Your task to perform on an android device: clear history in the chrome app Image 0: 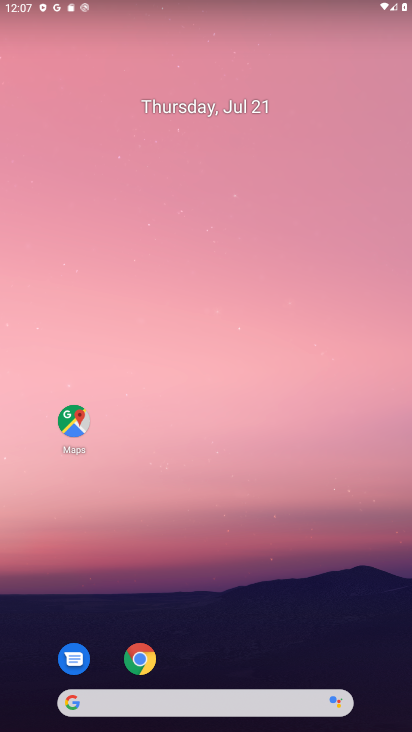
Step 0: click (144, 667)
Your task to perform on an android device: clear history in the chrome app Image 1: 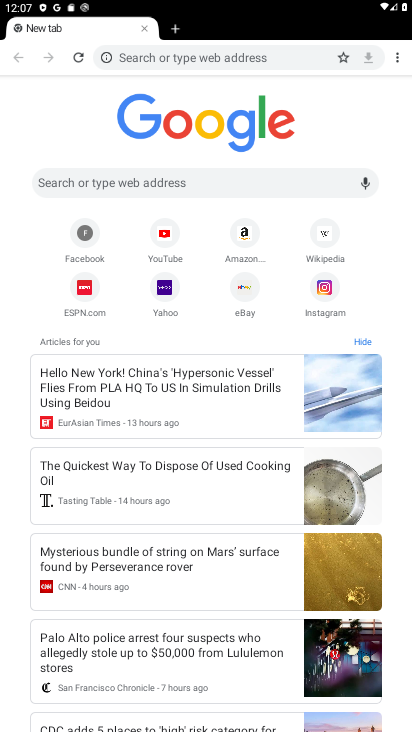
Step 1: click (398, 57)
Your task to perform on an android device: clear history in the chrome app Image 2: 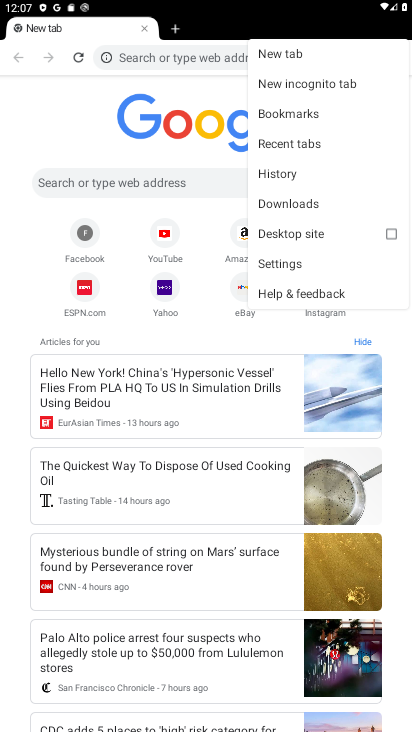
Step 2: click (292, 168)
Your task to perform on an android device: clear history in the chrome app Image 3: 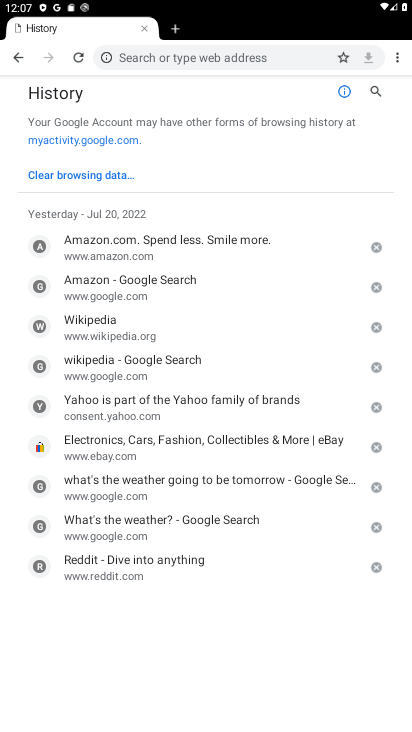
Step 3: click (83, 172)
Your task to perform on an android device: clear history in the chrome app Image 4: 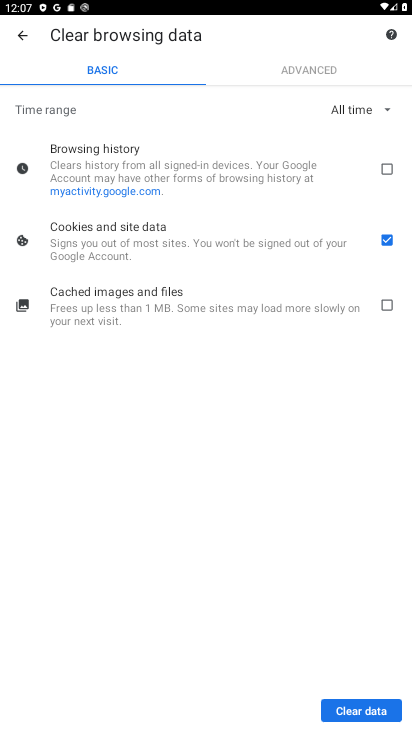
Step 4: click (383, 175)
Your task to perform on an android device: clear history in the chrome app Image 5: 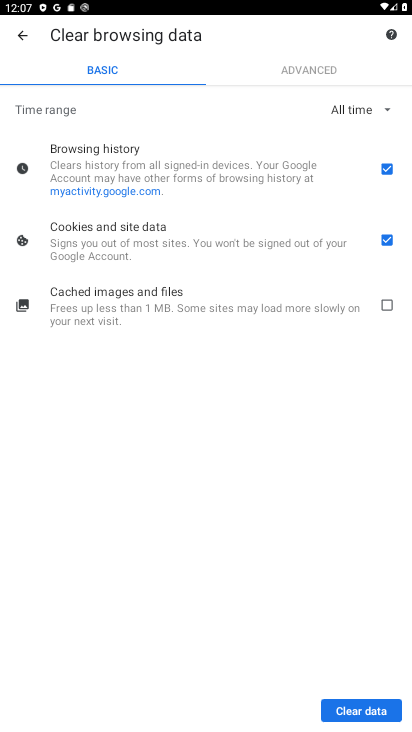
Step 5: click (385, 234)
Your task to perform on an android device: clear history in the chrome app Image 6: 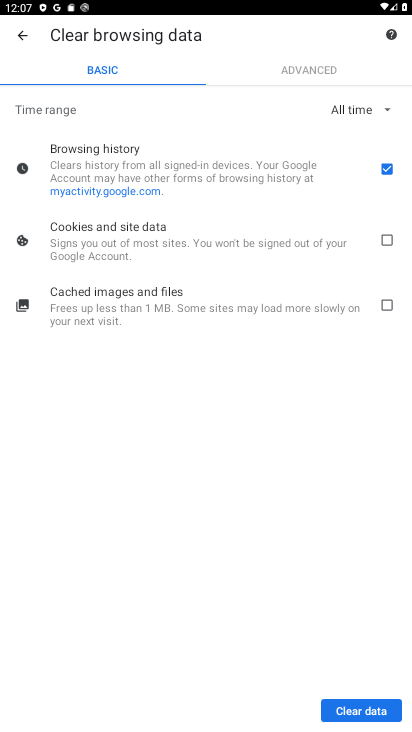
Step 6: click (347, 710)
Your task to perform on an android device: clear history in the chrome app Image 7: 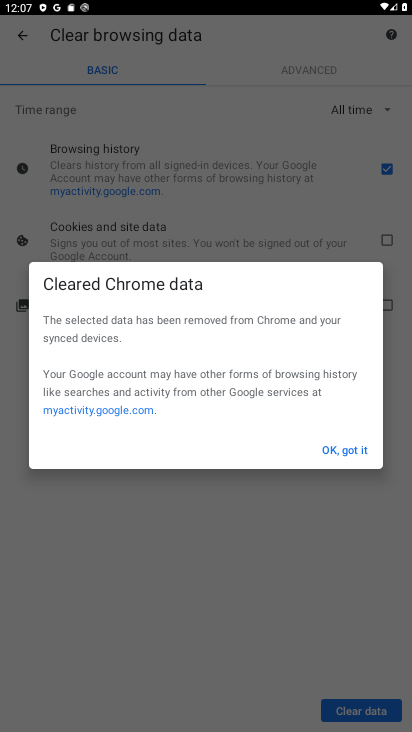
Step 7: click (345, 450)
Your task to perform on an android device: clear history in the chrome app Image 8: 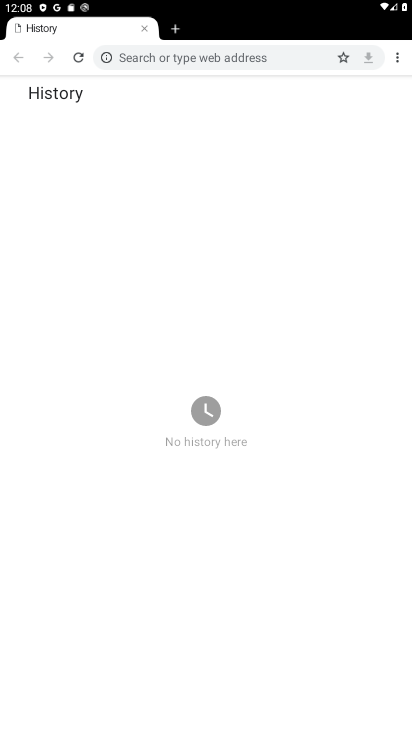
Step 8: task complete